Your task to perform on an android device: What's the news in Uruguay? Image 0: 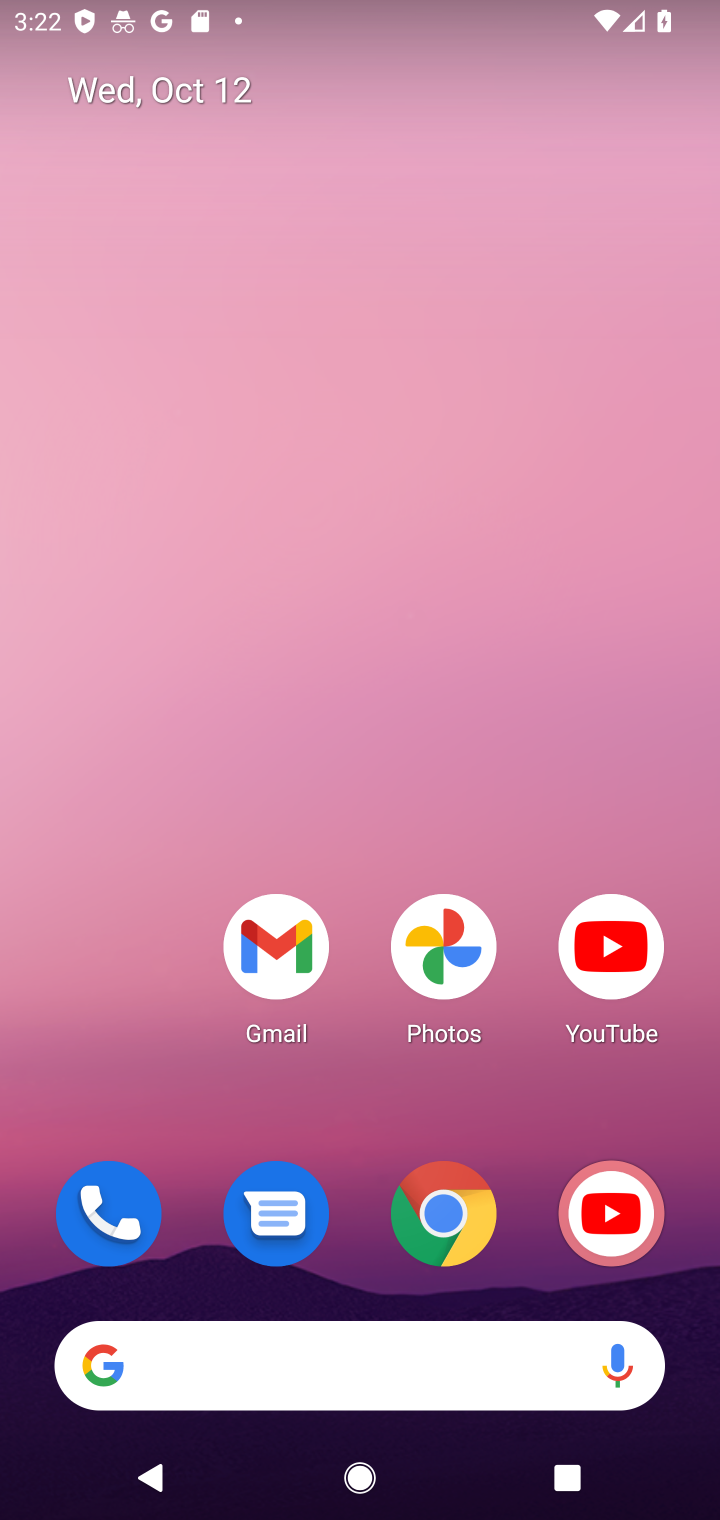
Step 0: type "What's the news in Uruguay?"
Your task to perform on an android device: What's the news in Uruguay? Image 1: 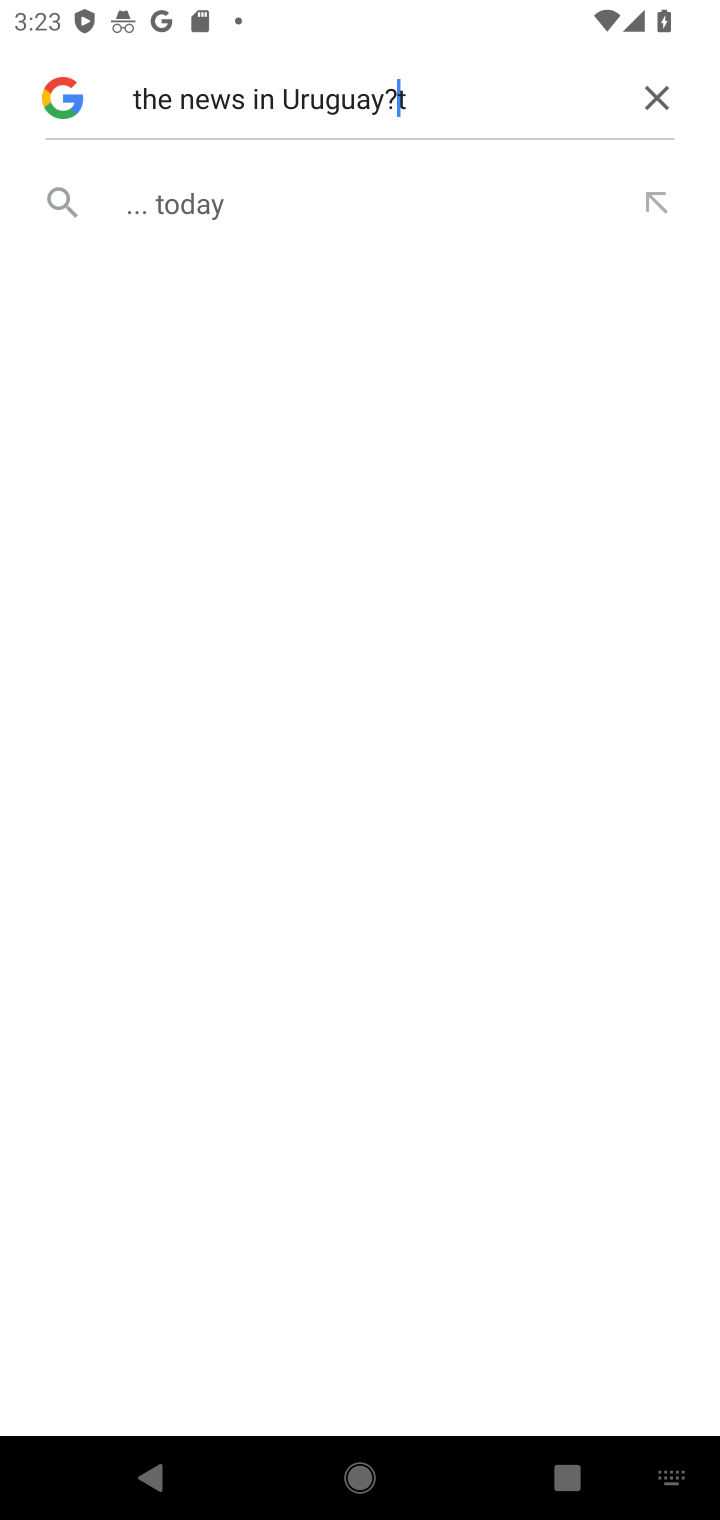
Step 1: click (233, 193)
Your task to perform on an android device: What's the news in Uruguay? Image 2: 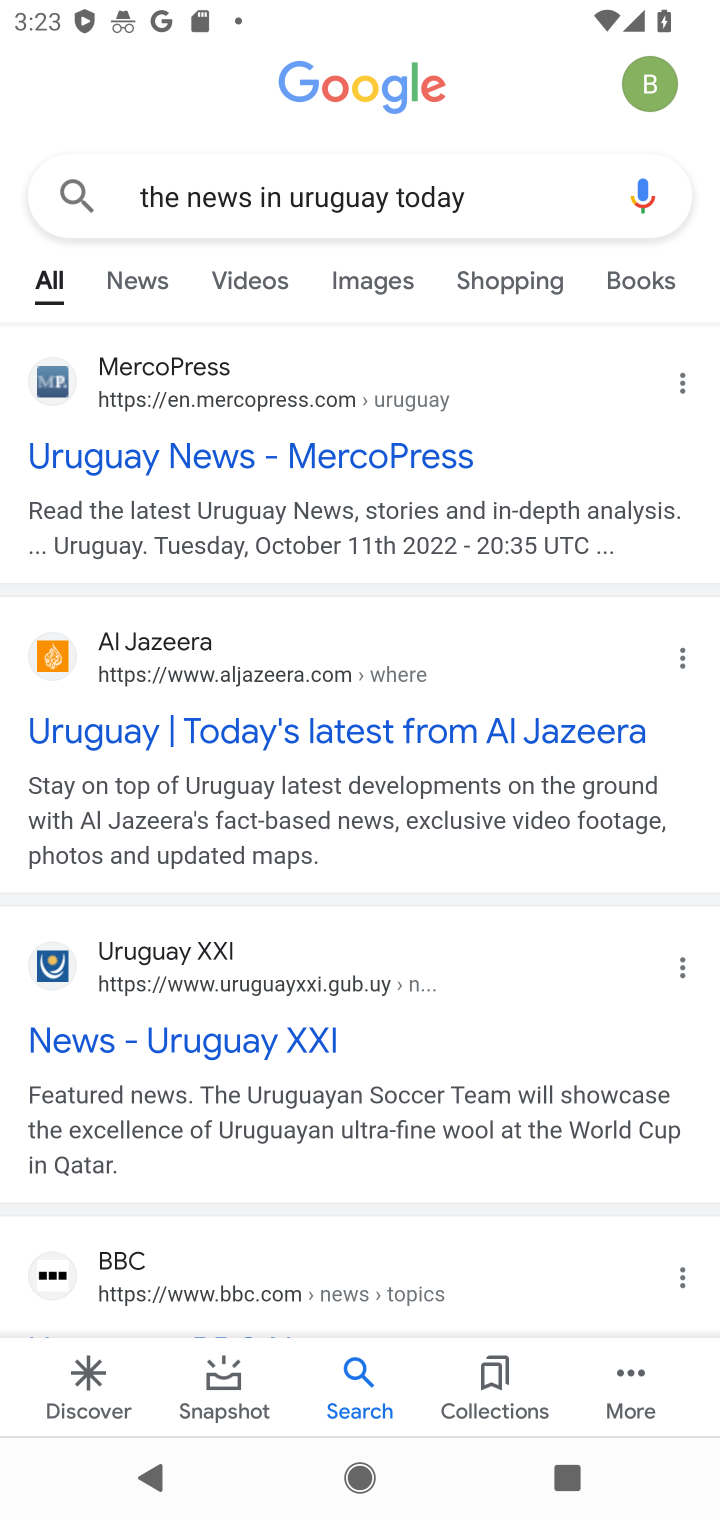
Step 2: task complete